Your task to perform on an android device: Go to Yahoo.com Image 0: 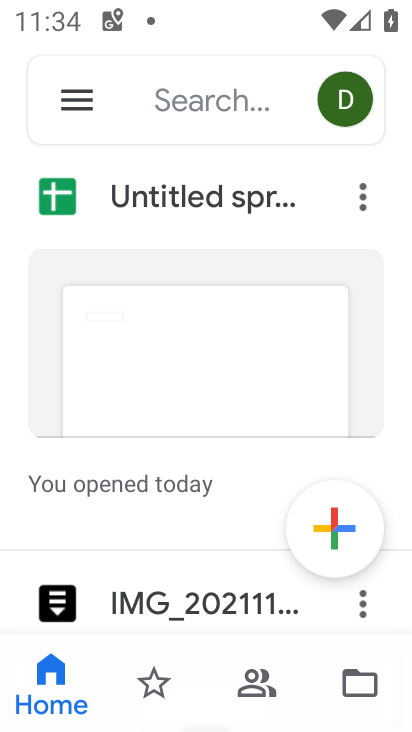
Step 0: press home button
Your task to perform on an android device: Go to Yahoo.com Image 1: 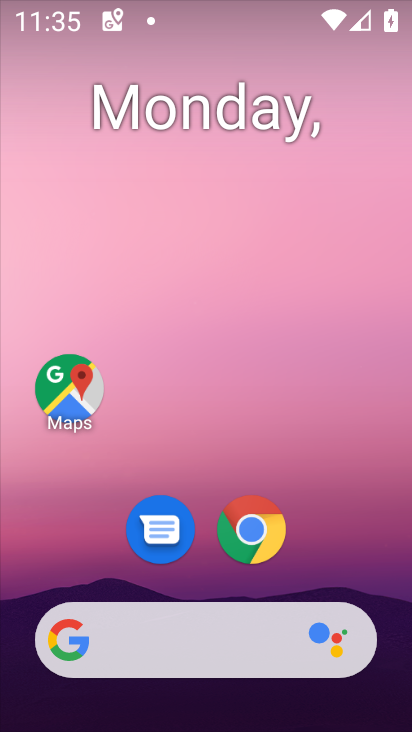
Step 1: click (249, 555)
Your task to perform on an android device: Go to Yahoo.com Image 2: 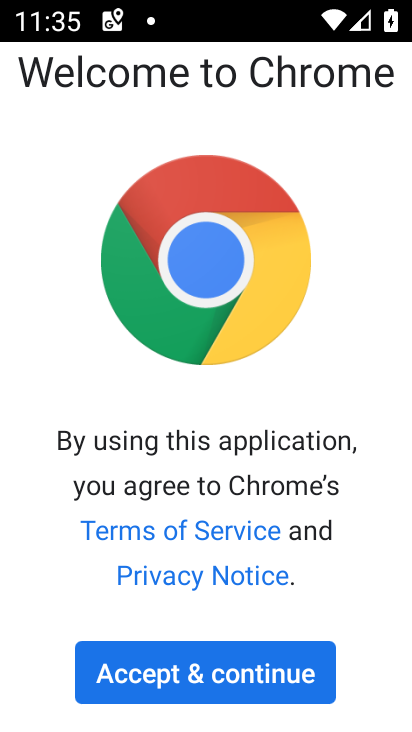
Step 2: click (227, 649)
Your task to perform on an android device: Go to Yahoo.com Image 3: 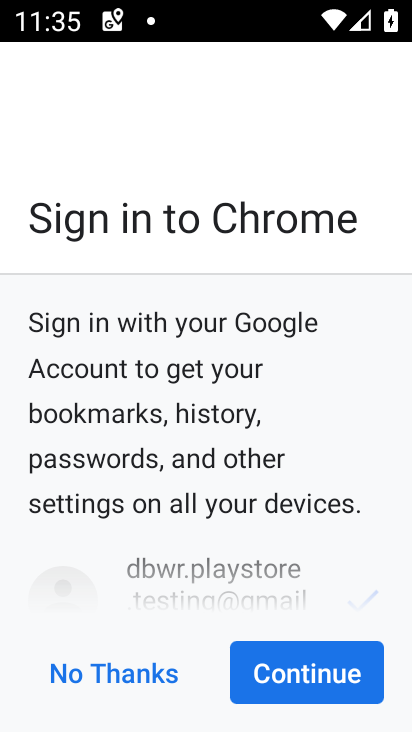
Step 3: click (305, 675)
Your task to perform on an android device: Go to Yahoo.com Image 4: 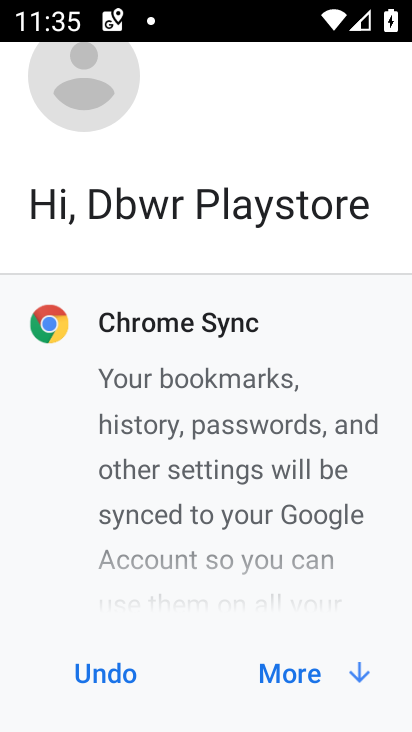
Step 4: click (355, 669)
Your task to perform on an android device: Go to Yahoo.com Image 5: 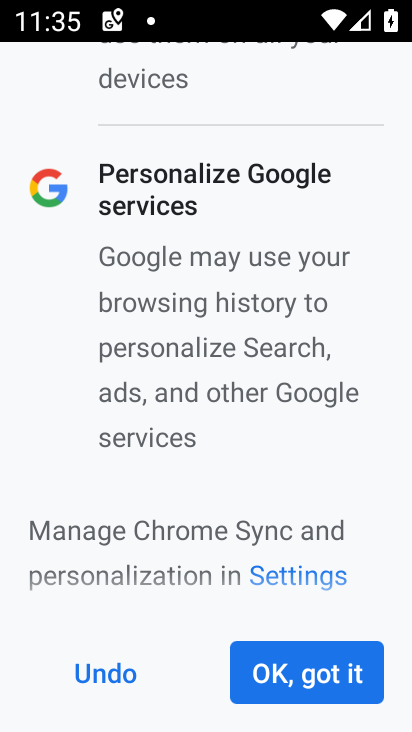
Step 5: click (322, 680)
Your task to perform on an android device: Go to Yahoo.com Image 6: 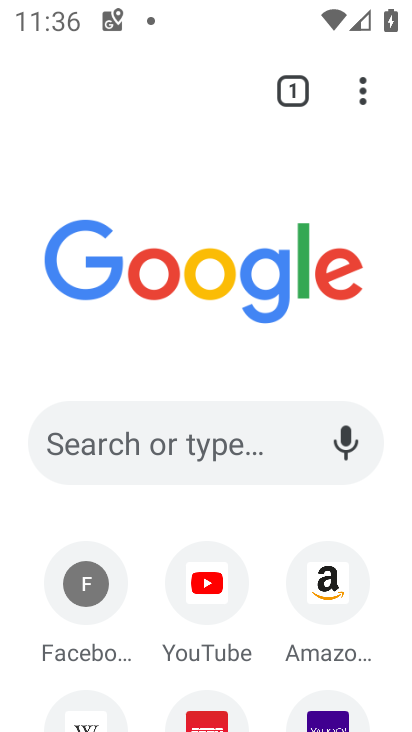
Step 6: click (320, 698)
Your task to perform on an android device: Go to Yahoo.com Image 7: 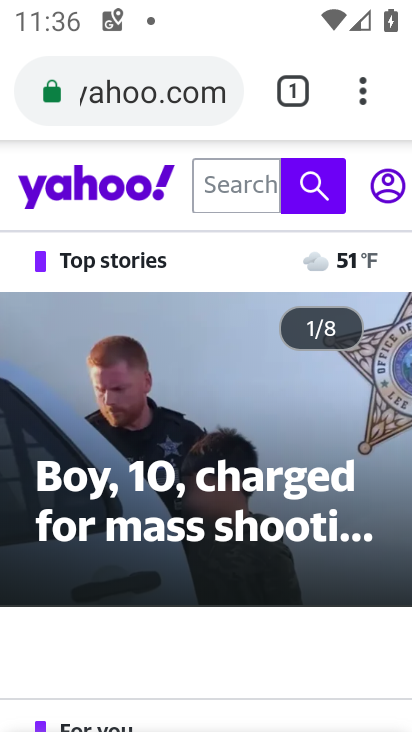
Step 7: task complete